Your task to perform on an android device: toggle data saver in the chrome app Image 0: 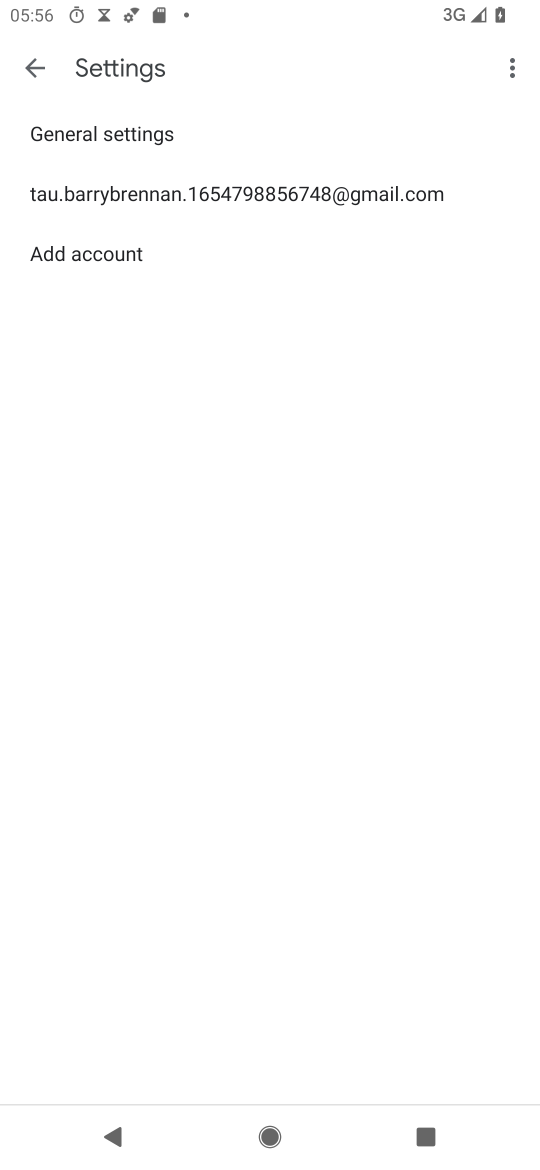
Step 0: press home button
Your task to perform on an android device: toggle data saver in the chrome app Image 1: 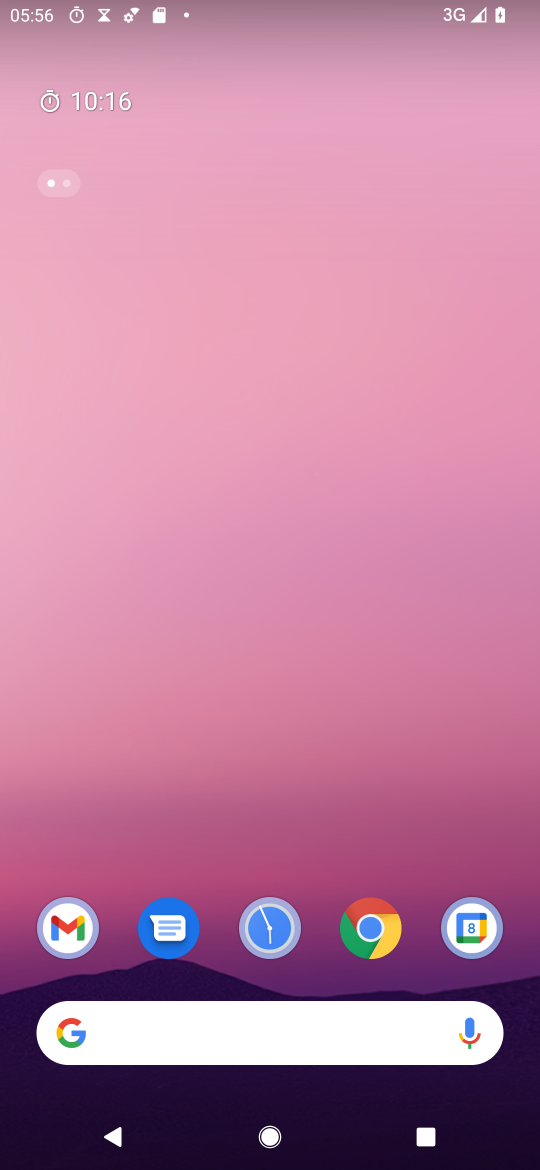
Step 1: click (386, 928)
Your task to perform on an android device: toggle data saver in the chrome app Image 2: 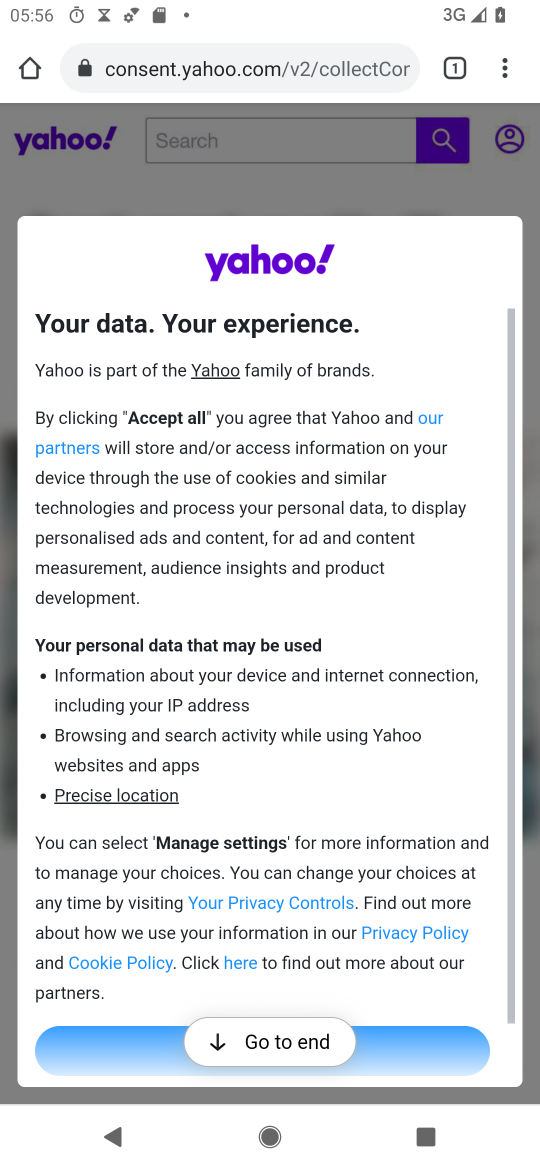
Step 2: click (501, 58)
Your task to perform on an android device: toggle data saver in the chrome app Image 3: 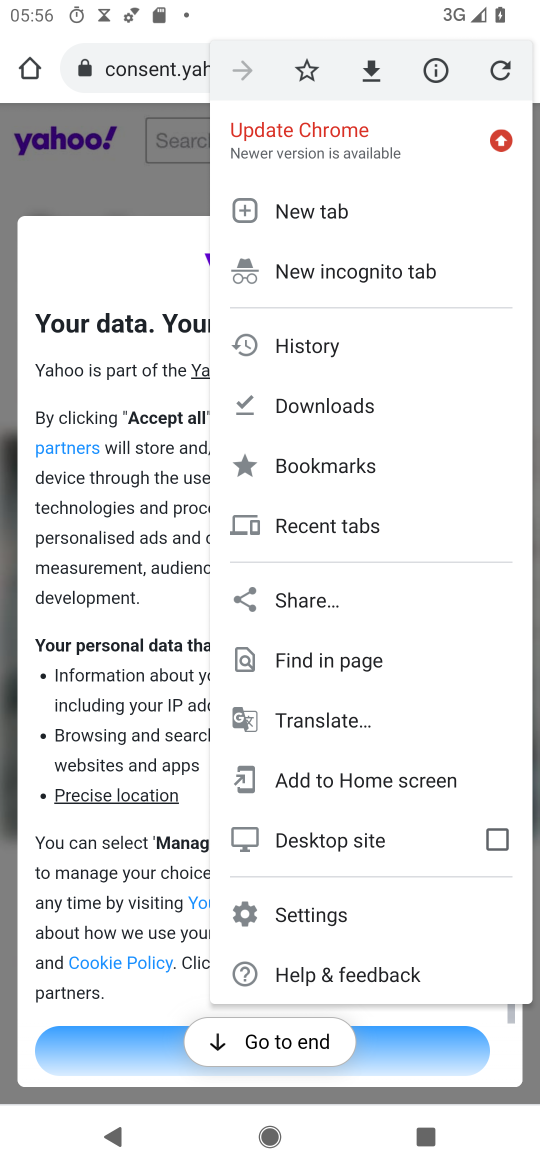
Step 3: click (341, 933)
Your task to perform on an android device: toggle data saver in the chrome app Image 4: 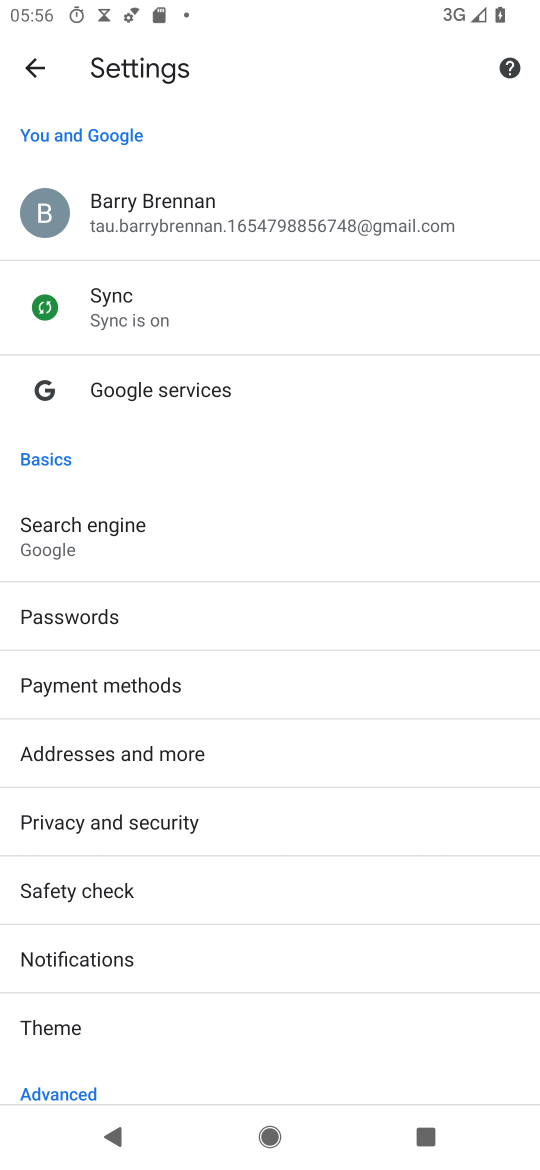
Step 4: drag from (134, 990) to (153, 354)
Your task to perform on an android device: toggle data saver in the chrome app Image 5: 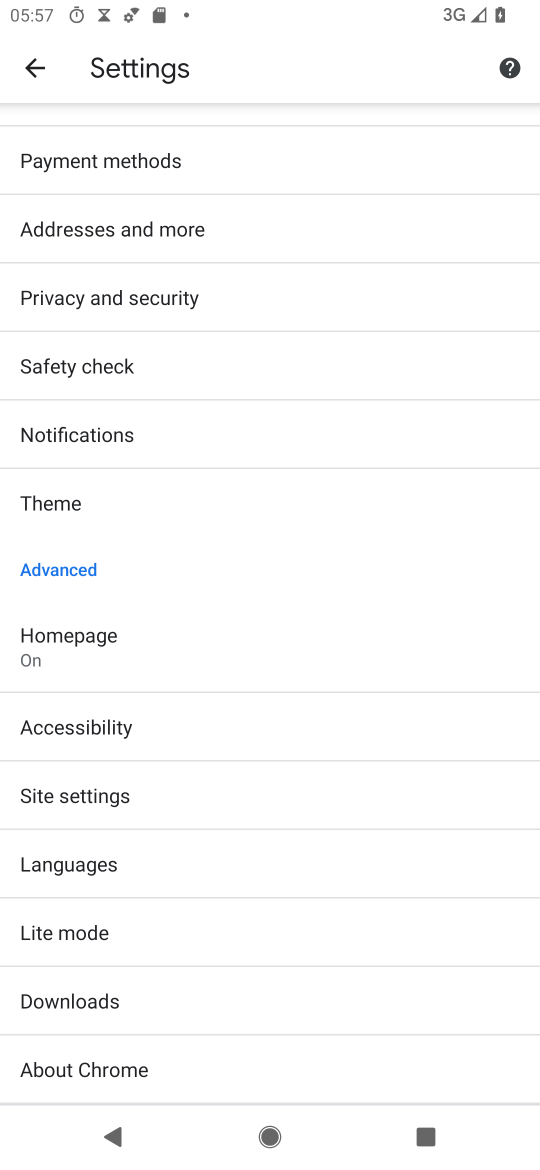
Step 5: click (98, 929)
Your task to perform on an android device: toggle data saver in the chrome app Image 6: 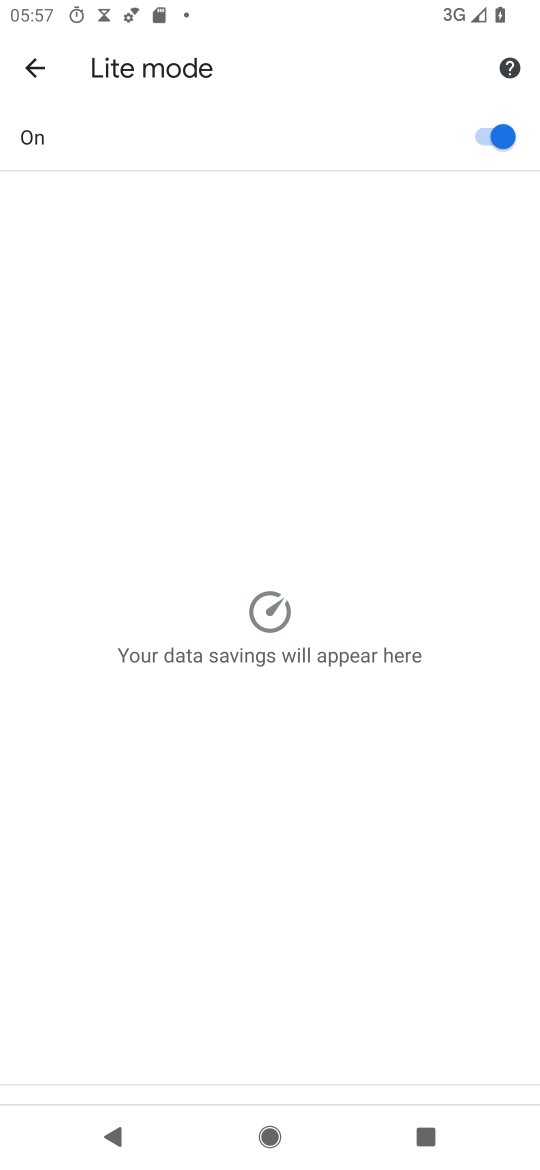
Step 6: click (464, 119)
Your task to perform on an android device: toggle data saver in the chrome app Image 7: 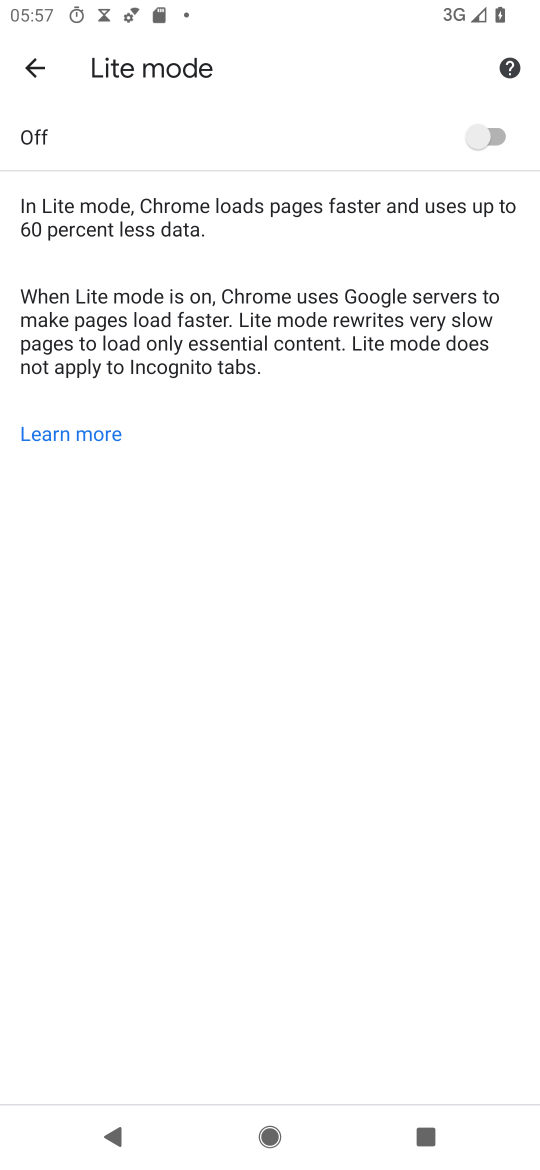
Step 7: task complete